Your task to perform on an android device: turn on bluetooth scan Image 0: 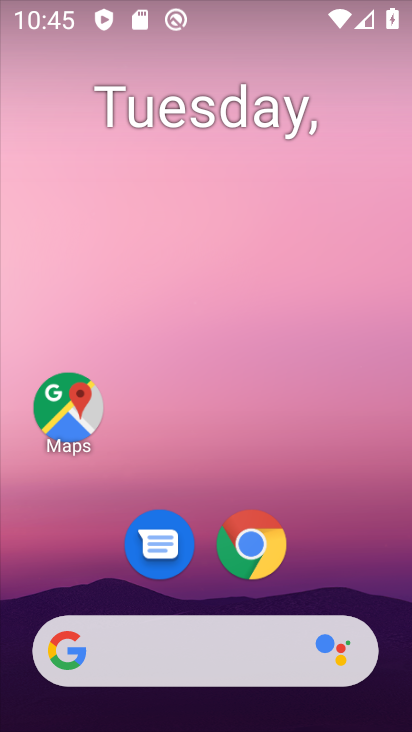
Step 0: drag from (379, 634) to (244, 43)
Your task to perform on an android device: turn on bluetooth scan Image 1: 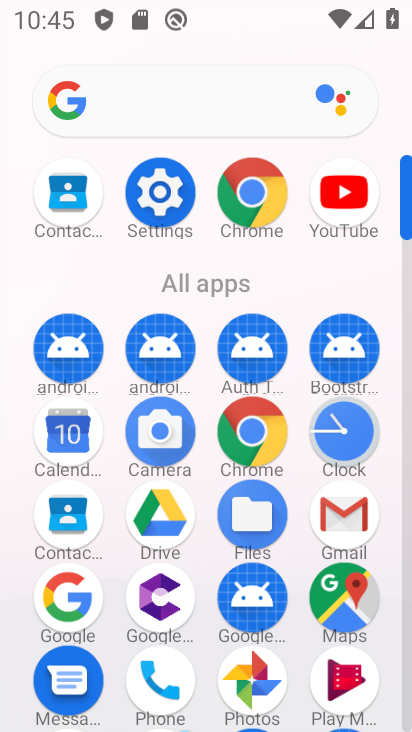
Step 1: click (151, 192)
Your task to perform on an android device: turn on bluetooth scan Image 2: 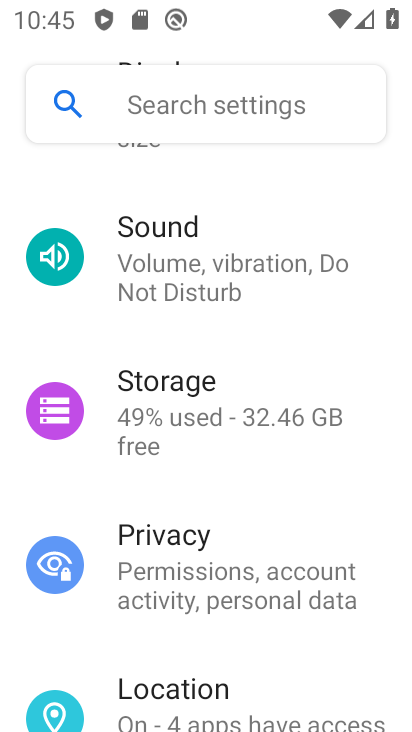
Step 2: click (193, 693)
Your task to perform on an android device: turn on bluetooth scan Image 3: 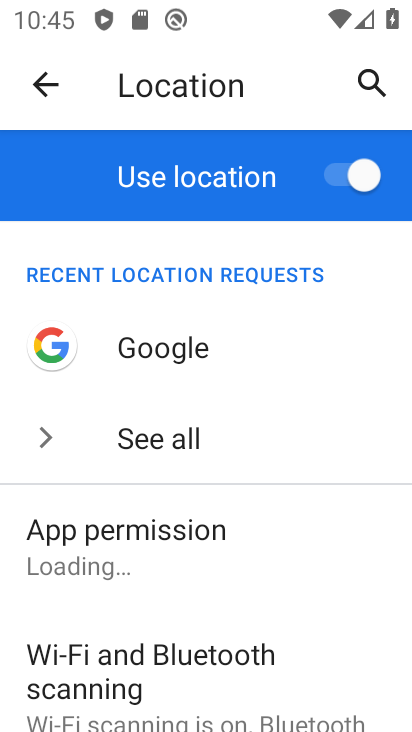
Step 3: click (147, 673)
Your task to perform on an android device: turn on bluetooth scan Image 4: 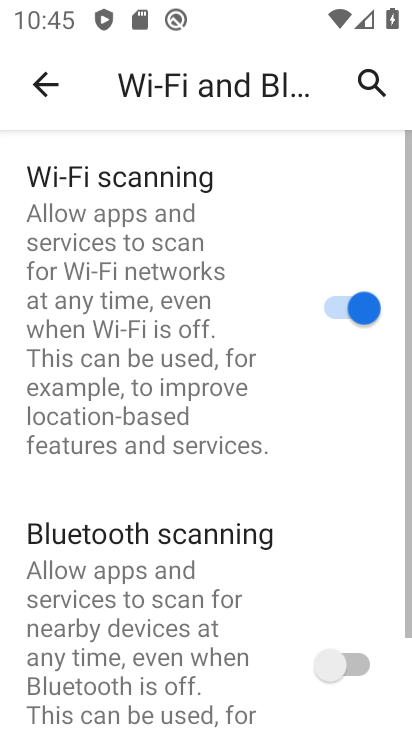
Step 4: click (322, 637)
Your task to perform on an android device: turn on bluetooth scan Image 5: 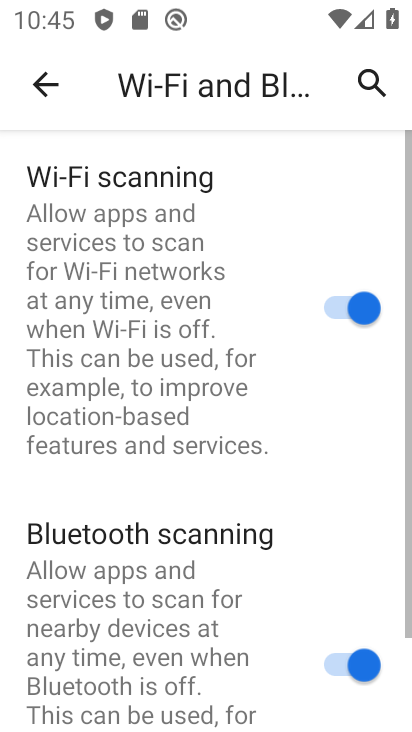
Step 5: task complete